Your task to perform on an android device: turn on data saver in the chrome app Image 0: 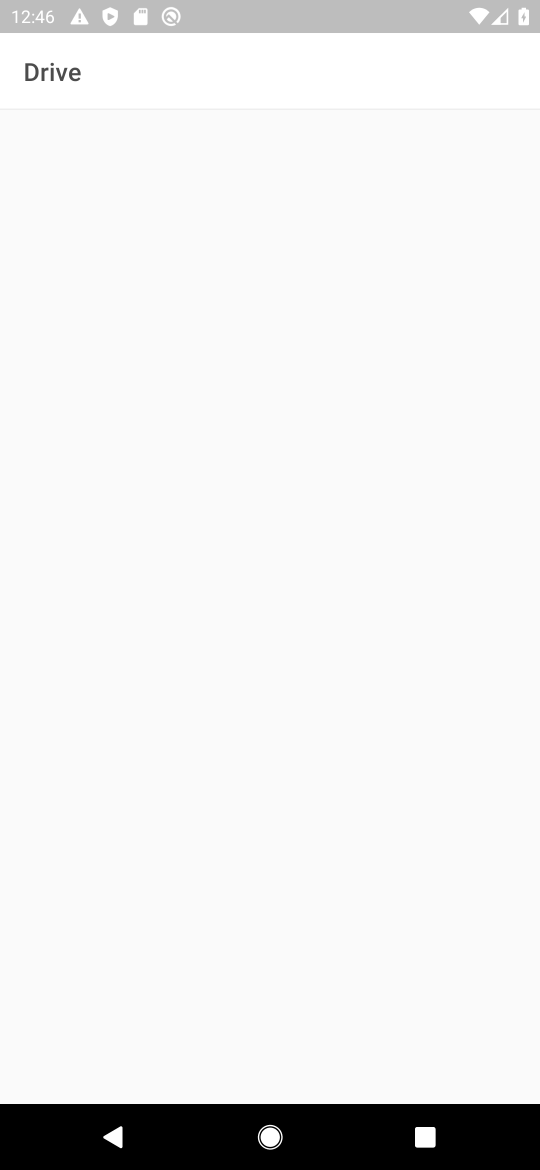
Step 0: press back button
Your task to perform on an android device: turn on data saver in the chrome app Image 1: 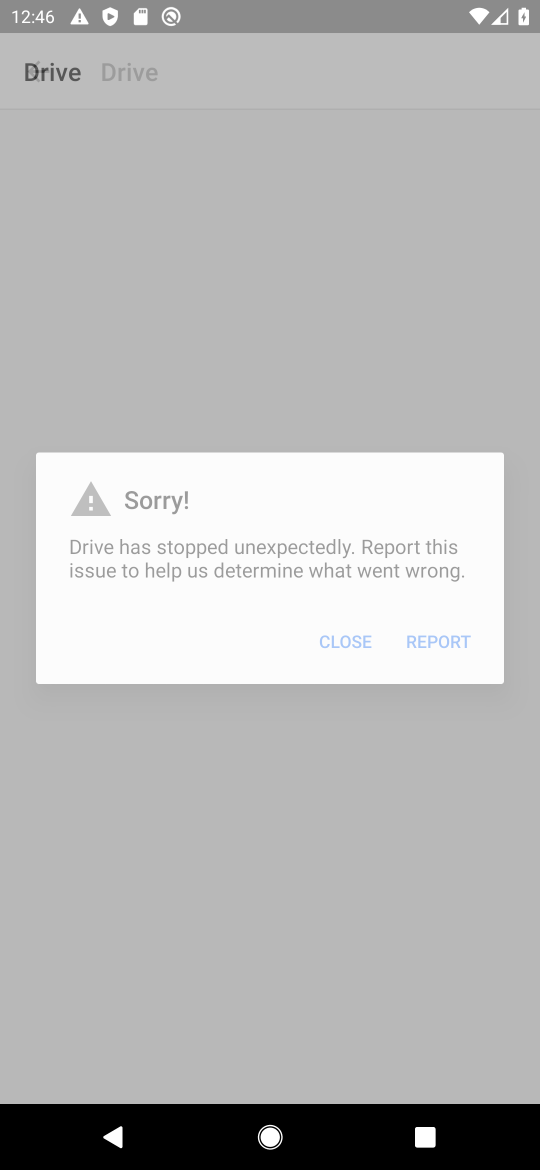
Step 1: press back button
Your task to perform on an android device: turn on data saver in the chrome app Image 2: 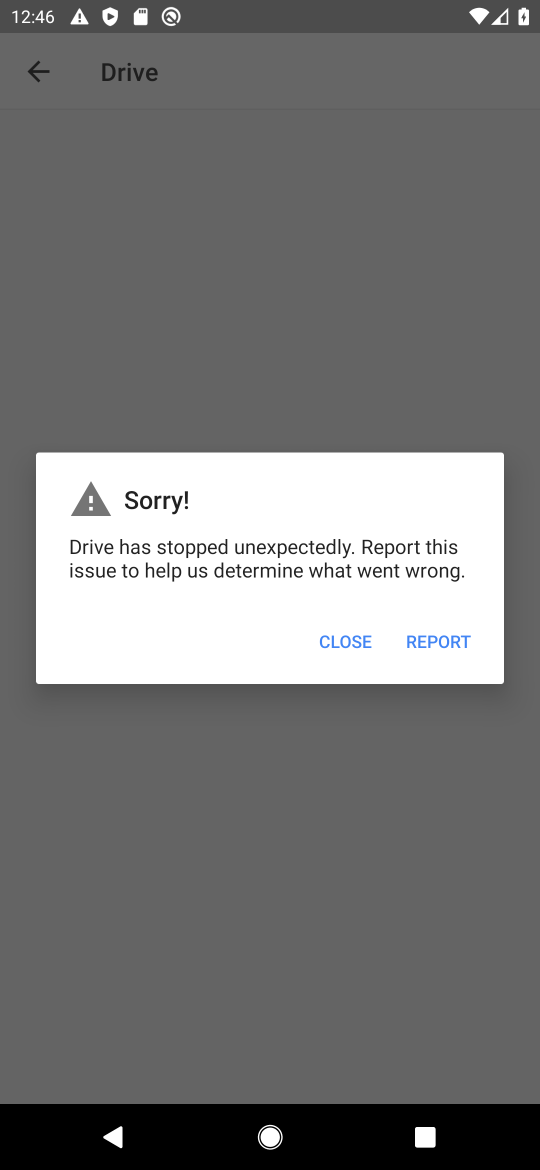
Step 2: press home button
Your task to perform on an android device: turn on data saver in the chrome app Image 3: 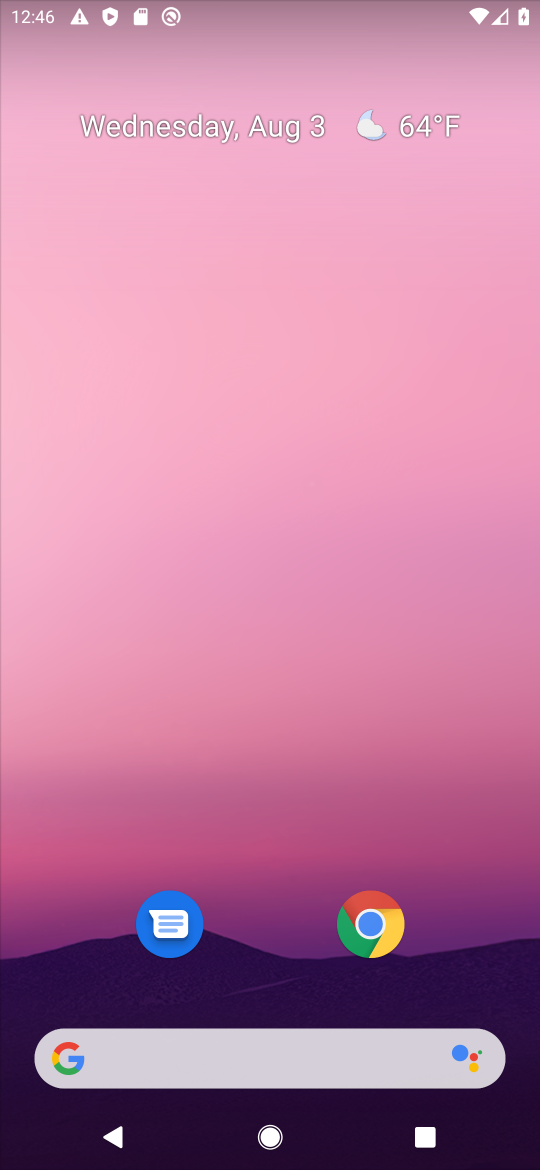
Step 3: click (374, 926)
Your task to perform on an android device: turn on data saver in the chrome app Image 4: 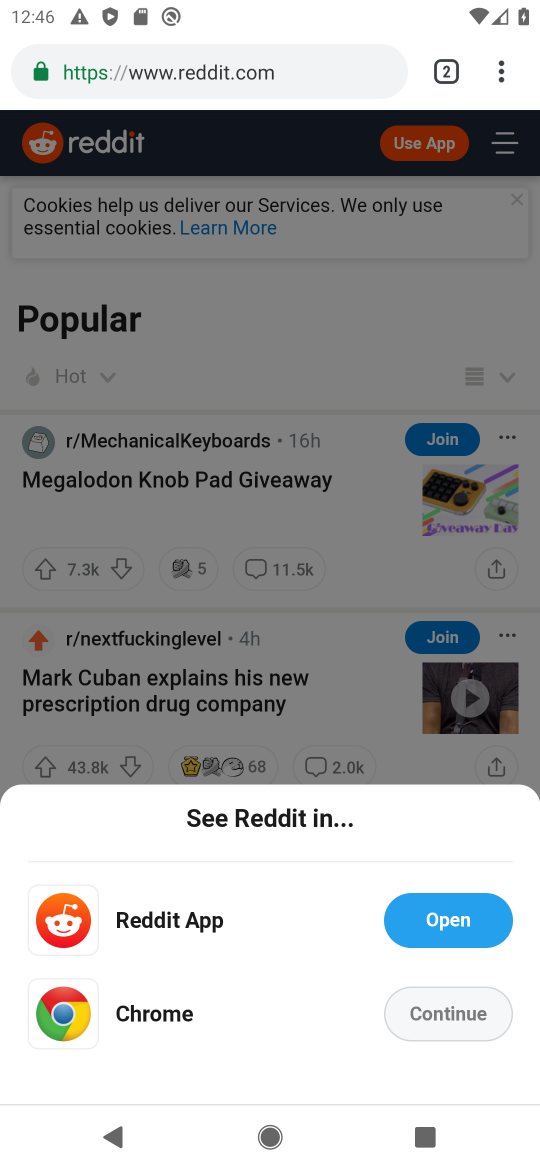
Step 4: drag from (508, 80) to (248, 859)
Your task to perform on an android device: turn on data saver in the chrome app Image 5: 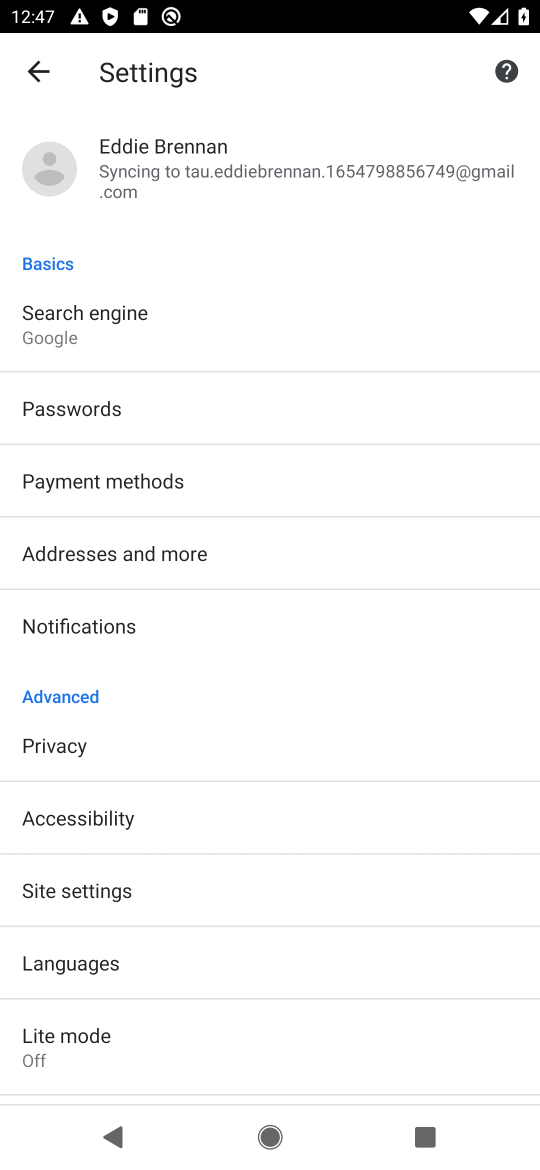
Step 5: drag from (245, 1030) to (385, 141)
Your task to perform on an android device: turn on data saver in the chrome app Image 6: 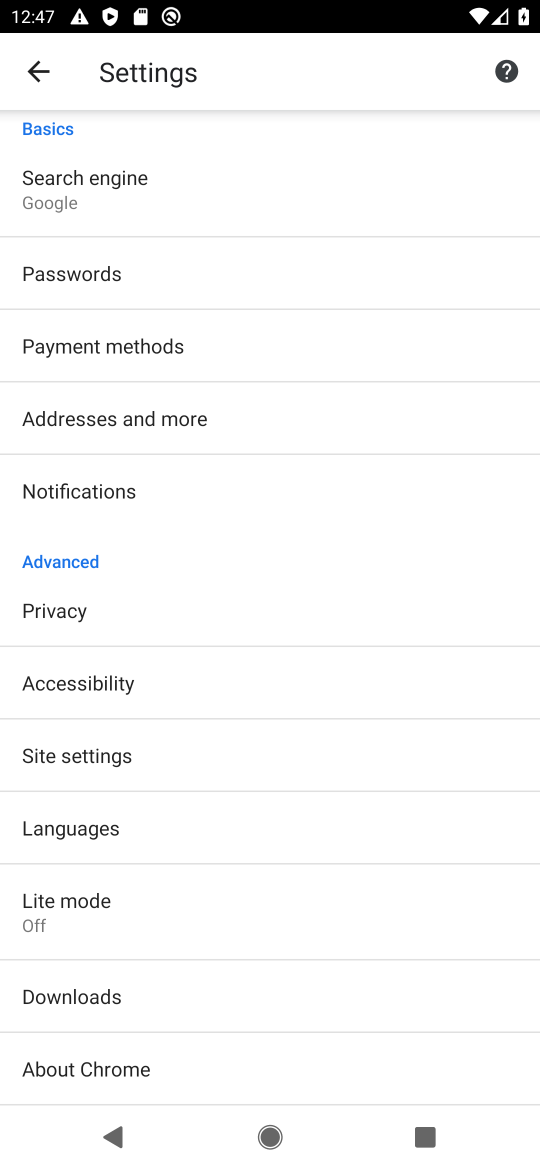
Step 6: click (107, 898)
Your task to perform on an android device: turn on data saver in the chrome app Image 7: 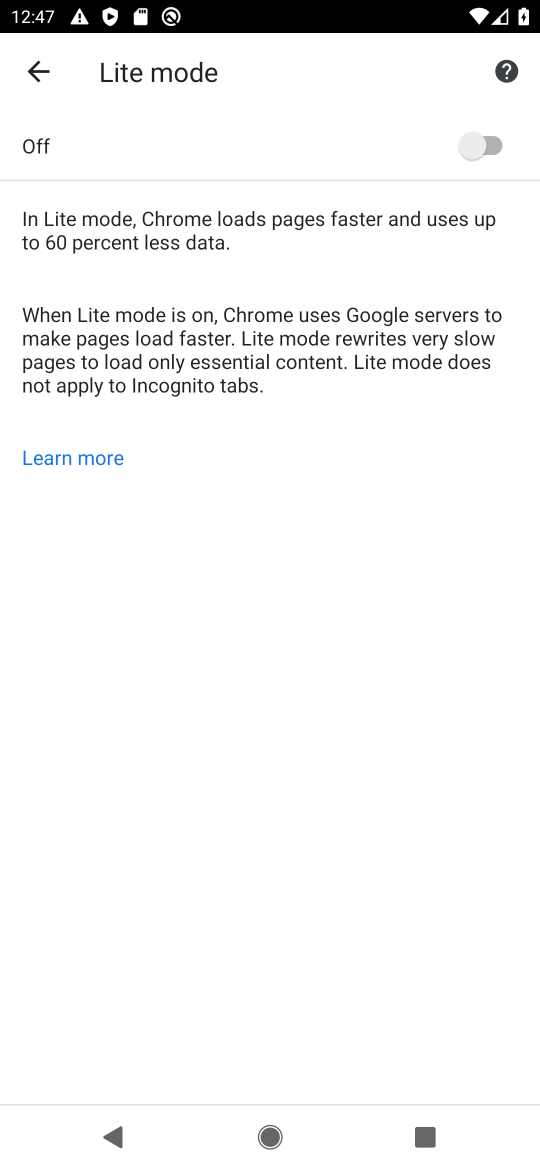
Step 7: click (486, 137)
Your task to perform on an android device: turn on data saver in the chrome app Image 8: 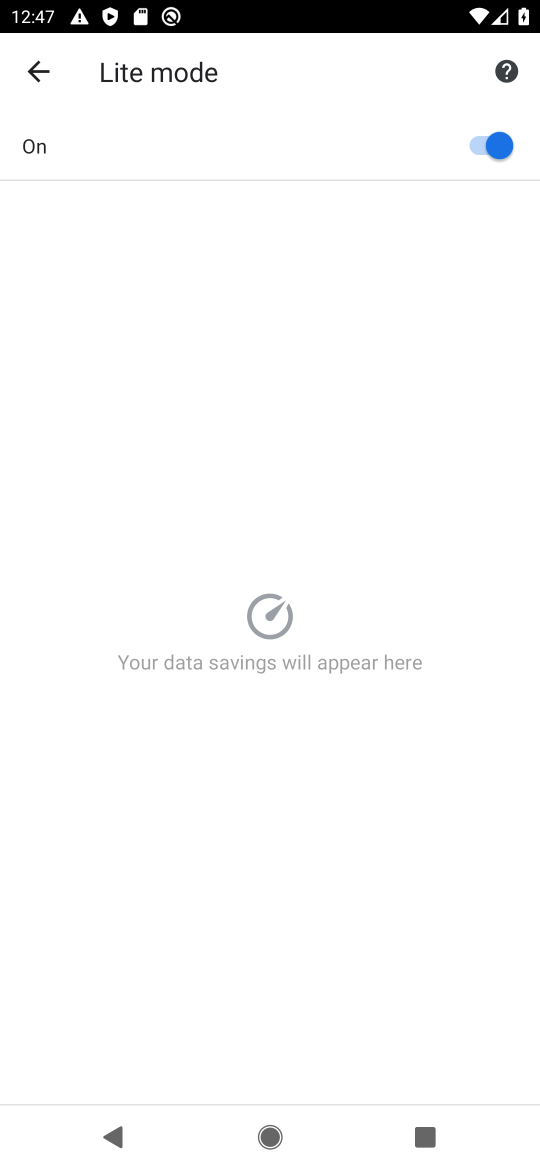
Step 8: task complete